Your task to perform on an android device: Check the weather Image 0: 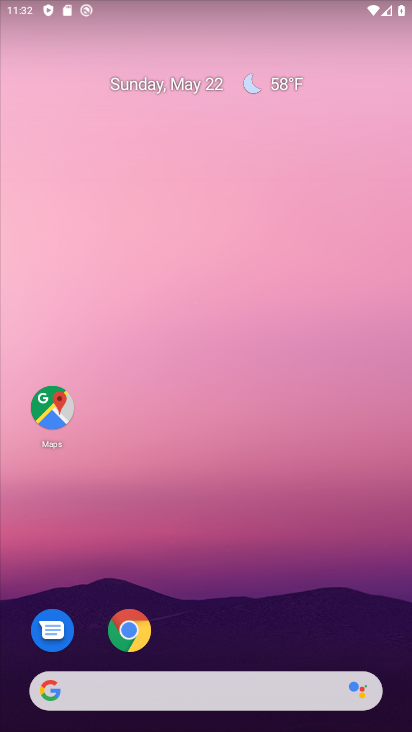
Step 0: click (272, 82)
Your task to perform on an android device: Check the weather Image 1: 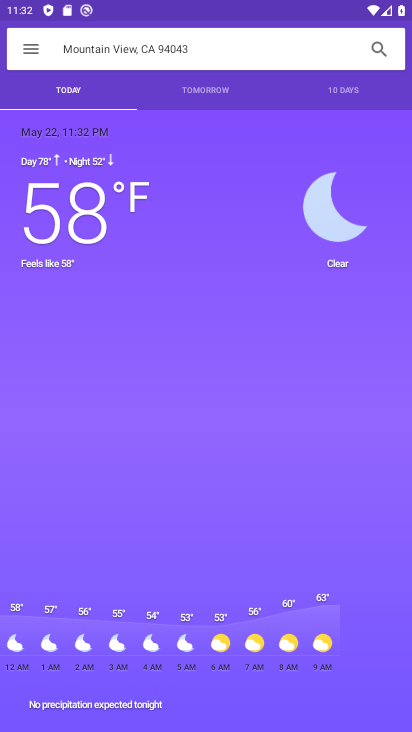
Step 1: task complete